Your task to perform on an android device: Is it going to rain today? Image 0: 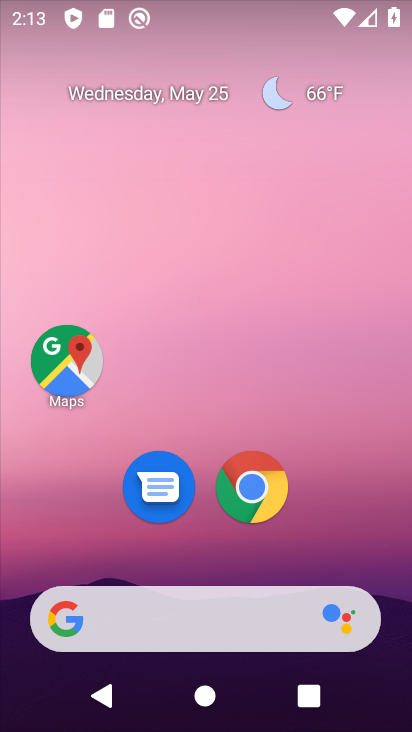
Step 0: drag from (249, 566) to (217, 98)
Your task to perform on an android device: Is it going to rain today? Image 1: 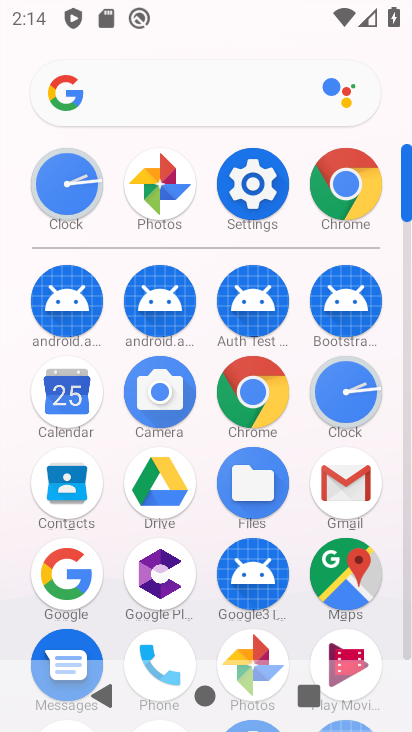
Step 1: click (40, 614)
Your task to perform on an android device: Is it going to rain today? Image 2: 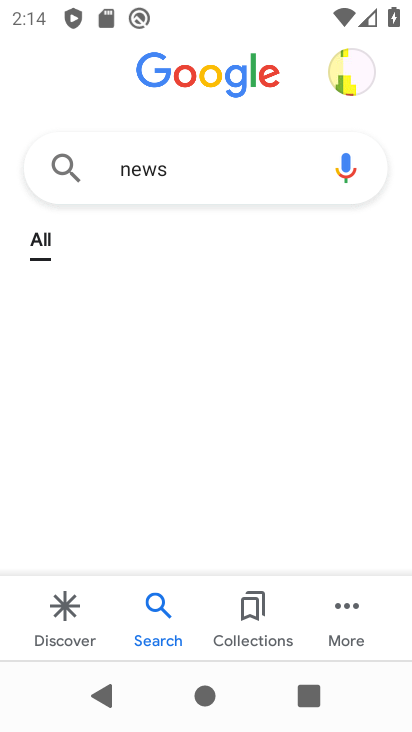
Step 2: click (191, 180)
Your task to perform on an android device: Is it going to rain today? Image 3: 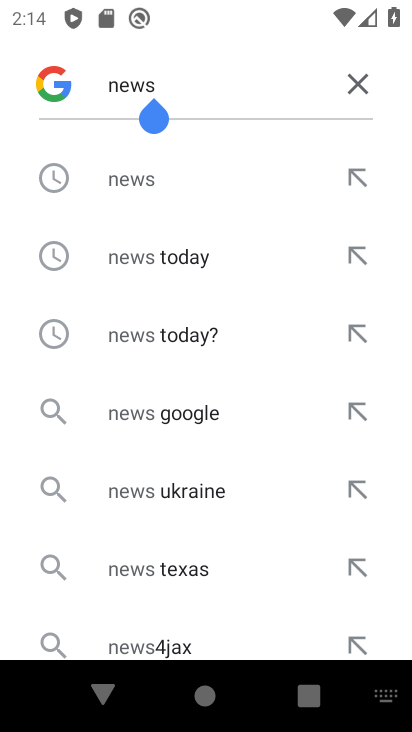
Step 3: click (351, 97)
Your task to perform on an android device: Is it going to rain today? Image 4: 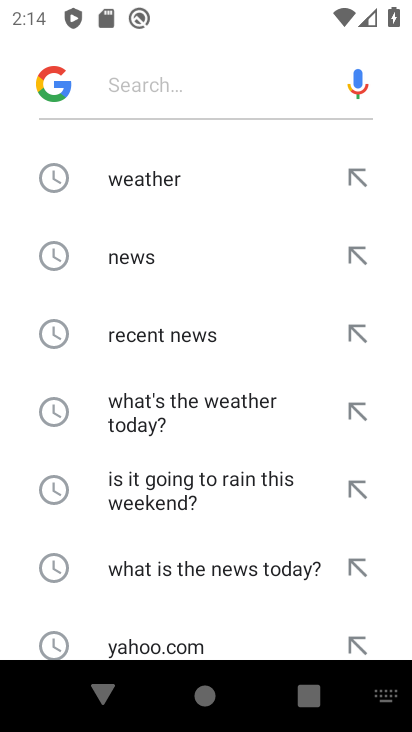
Step 4: click (105, 191)
Your task to perform on an android device: Is it going to rain today? Image 5: 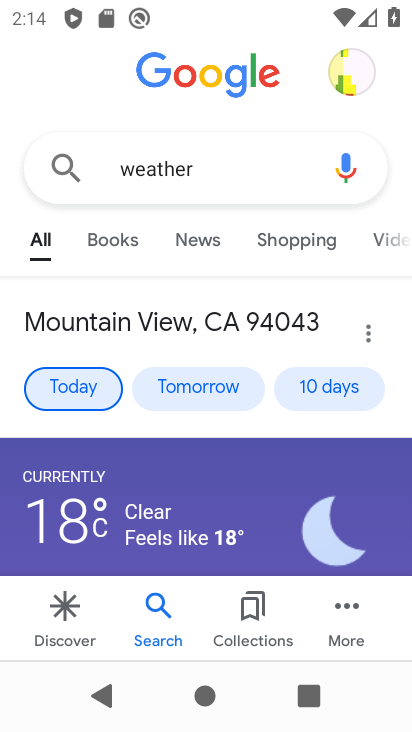
Step 5: task complete